Your task to perform on an android device: Go to eBay Image 0: 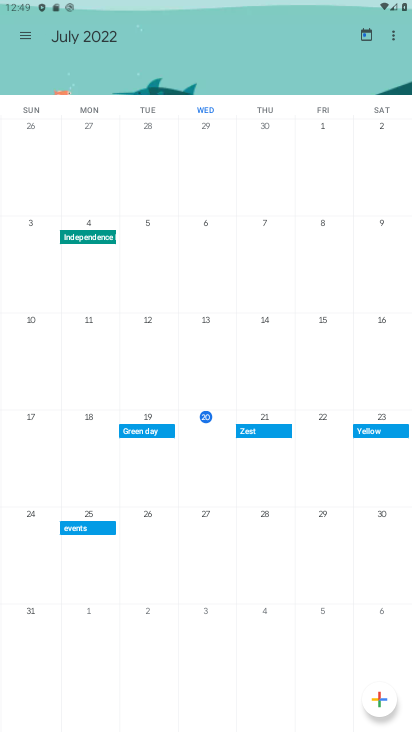
Step 0: press home button
Your task to perform on an android device: Go to eBay Image 1: 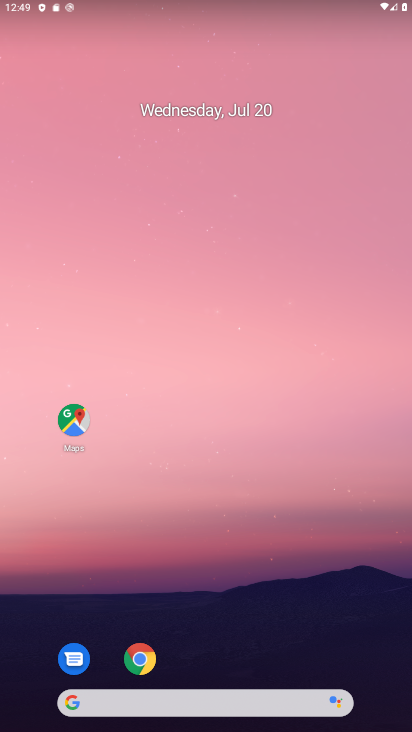
Step 1: drag from (267, 340) to (303, 65)
Your task to perform on an android device: Go to eBay Image 2: 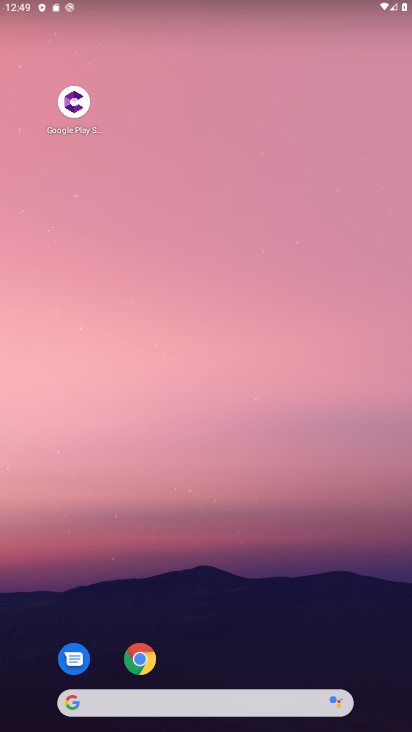
Step 2: drag from (216, 489) to (250, 119)
Your task to perform on an android device: Go to eBay Image 3: 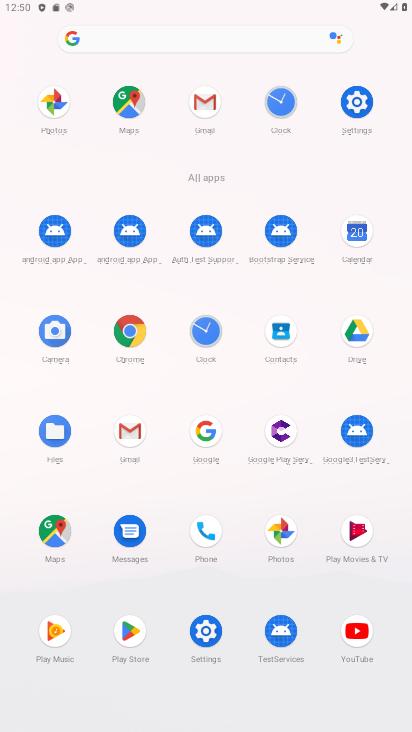
Step 3: click (125, 334)
Your task to perform on an android device: Go to eBay Image 4: 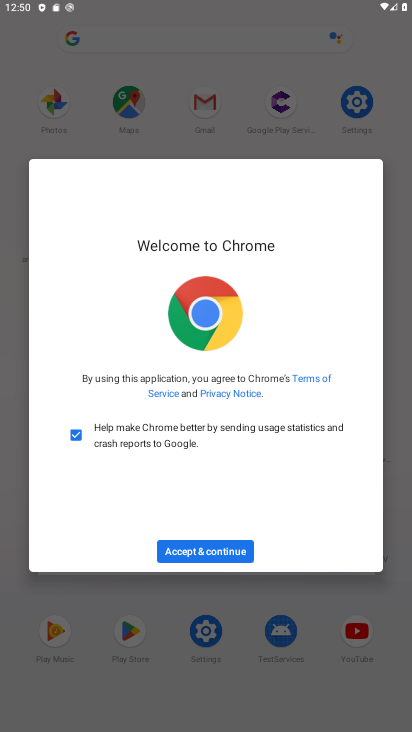
Step 4: click (229, 545)
Your task to perform on an android device: Go to eBay Image 5: 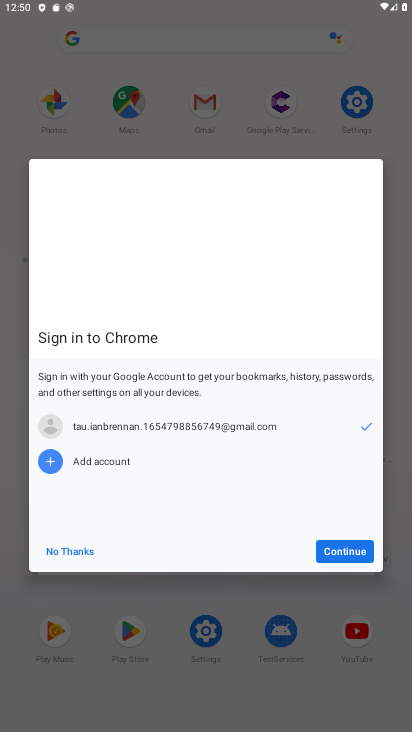
Step 5: click (344, 544)
Your task to perform on an android device: Go to eBay Image 6: 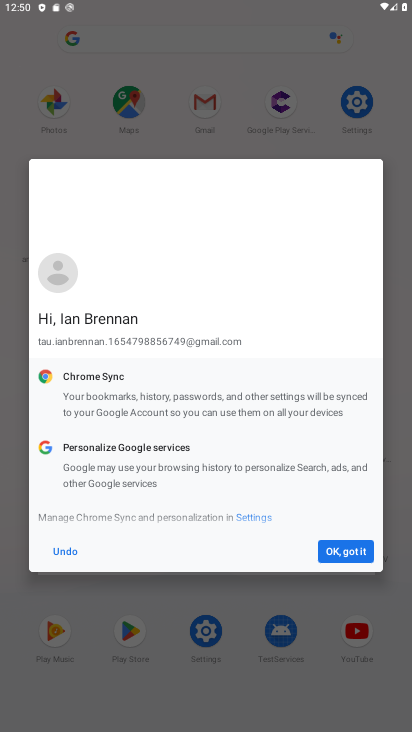
Step 6: click (345, 545)
Your task to perform on an android device: Go to eBay Image 7: 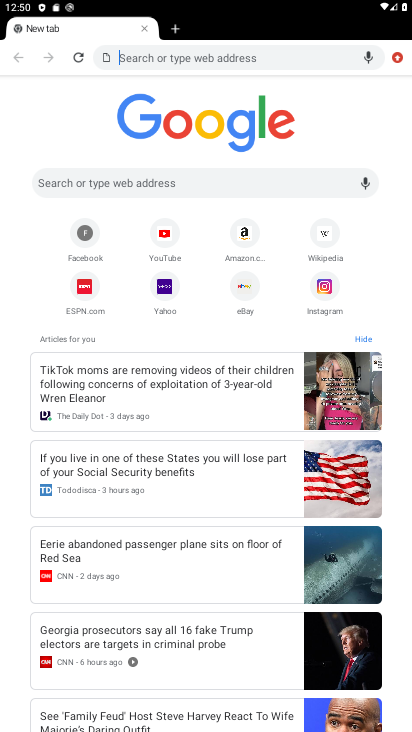
Step 7: click (248, 283)
Your task to perform on an android device: Go to eBay Image 8: 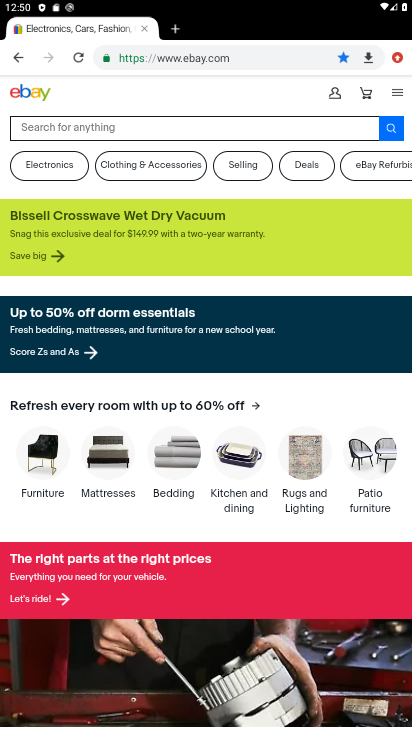
Step 8: task complete